Your task to perform on an android device: turn off data saver in the chrome app Image 0: 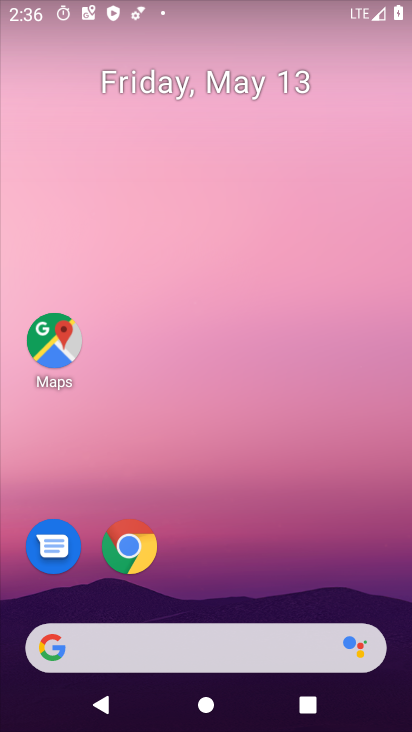
Step 0: drag from (274, 537) to (308, 172)
Your task to perform on an android device: turn off data saver in the chrome app Image 1: 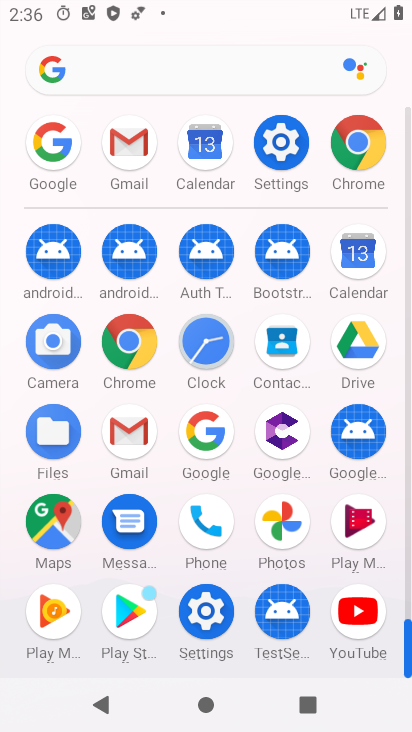
Step 1: click (359, 180)
Your task to perform on an android device: turn off data saver in the chrome app Image 2: 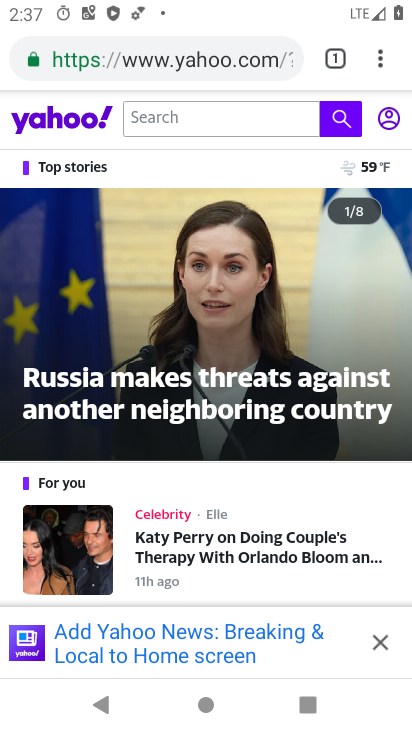
Step 2: click (383, 64)
Your task to perform on an android device: turn off data saver in the chrome app Image 3: 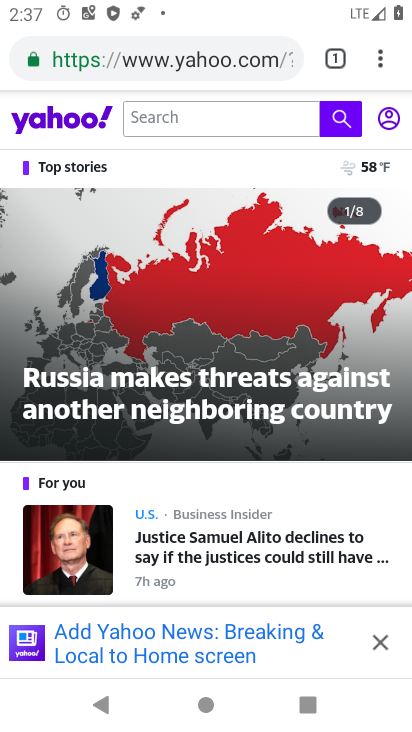
Step 3: click (385, 68)
Your task to perform on an android device: turn off data saver in the chrome app Image 4: 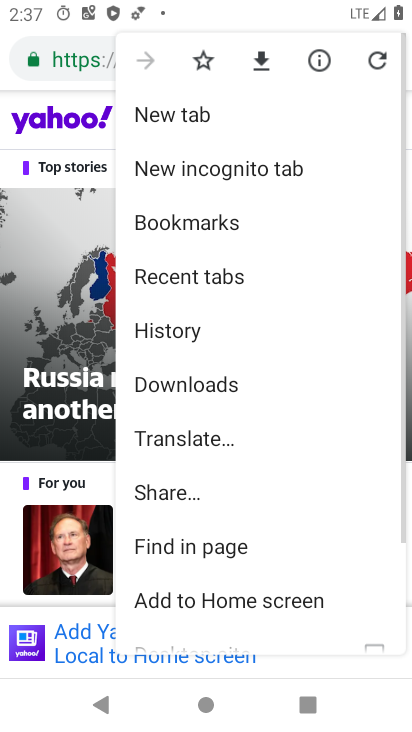
Step 4: drag from (237, 515) to (284, 124)
Your task to perform on an android device: turn off data saver in the chrome app Image 5: 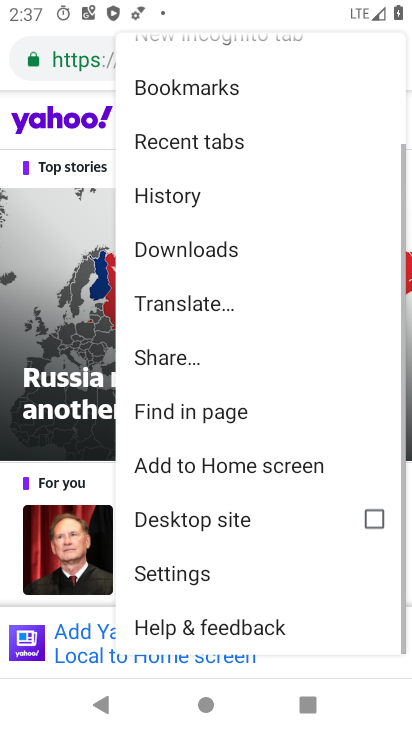
Step 5: click (222, 576)
Your task to perform on an android device: turn off data saver in the chrome app Image 6: 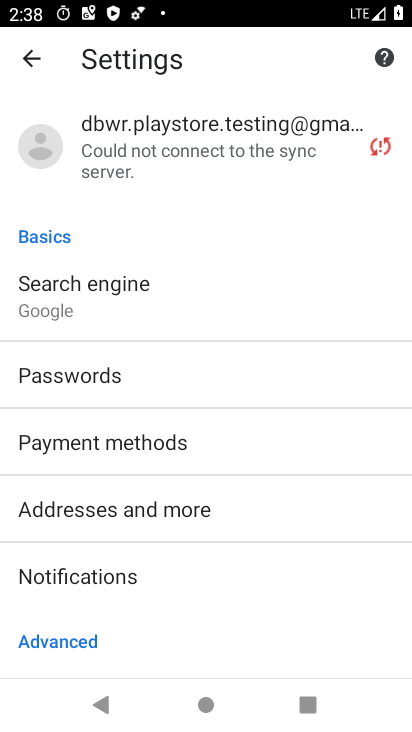
Step 6: drag from (222, 578) to (228, 183)
Your task to perform on an android device: turn off data saver in the chrome app Image 7: 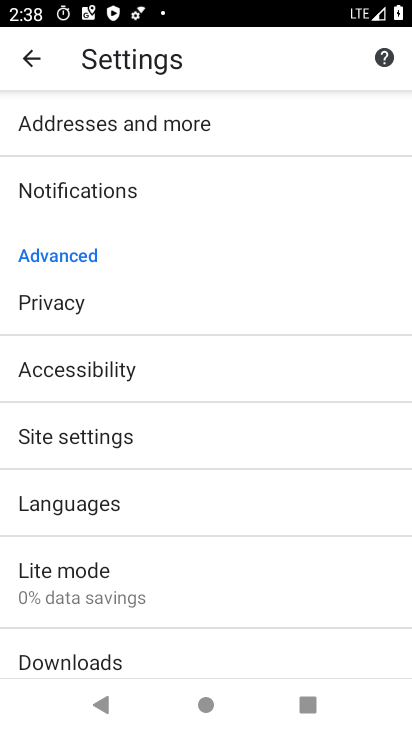
Step 7: drag from (215, 538) to (250, 297)
Your task to perform on an android device: turn off data saver in the chrome app Image 8: 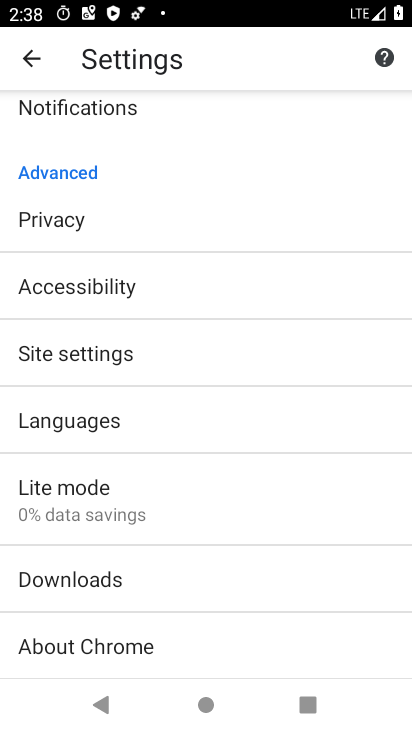
Step 8: drag from (193, 550) to (230, 322)
Your task to perform on an android device: turn off data saver in the chrome app Image 9: 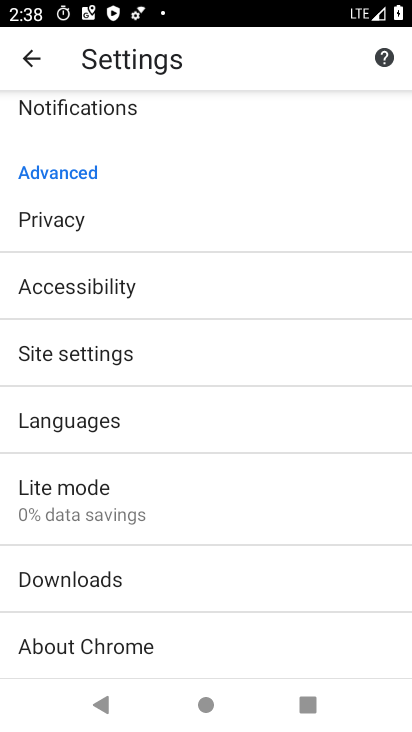
Step 9: drag from (183, 338) to (186, 617)
Your task to perform on an android device: turn off data saver in the chrome app Image 10: 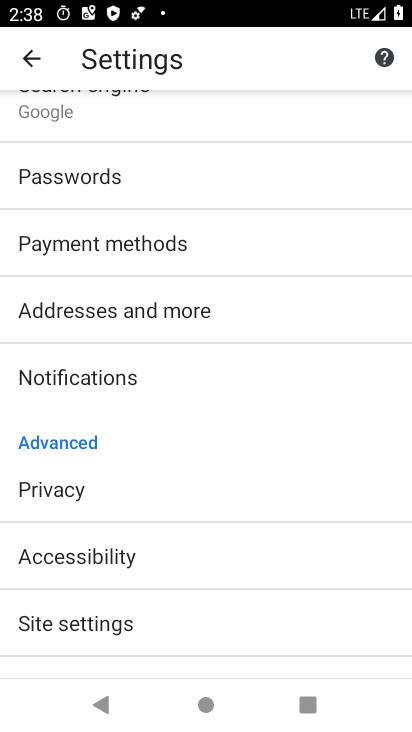
Step 10: drag from (189, 478) to (207, 314)
Your task to perform on an android device: turn off data saver in the chrome app Image 11: 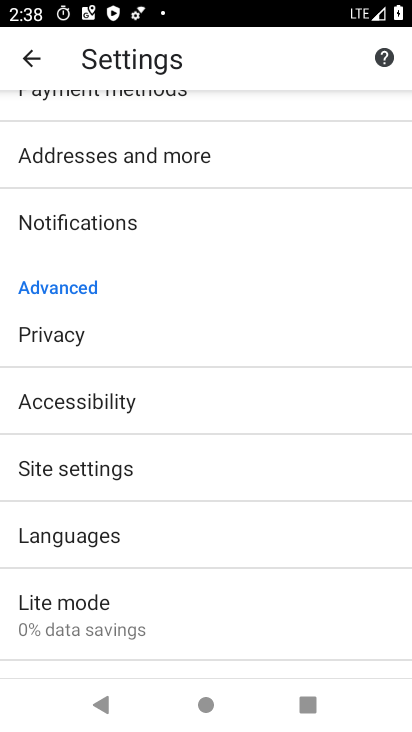
Step 11: click (163, 607)
Your task to perform on an android device: turn off data saver in the chrome app Image 12: 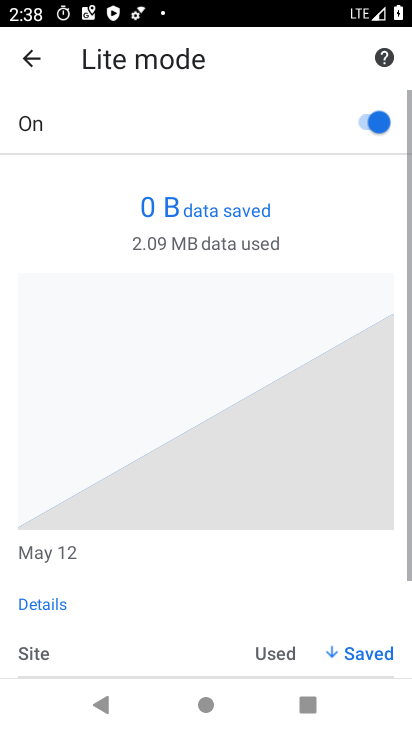
Step 12: click (364, 129)
Your task to perform on an android device: turn off data saver in the chrome app Image 13: 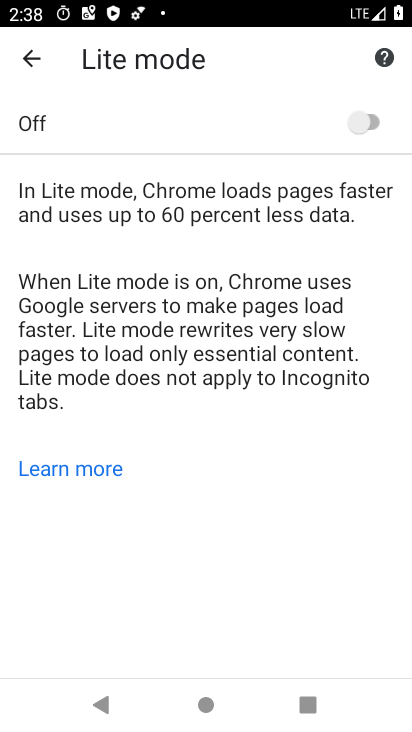
Step 13: task complete